Your task to perform on an android device: toggle notifications settings in the gmail app Image 0: 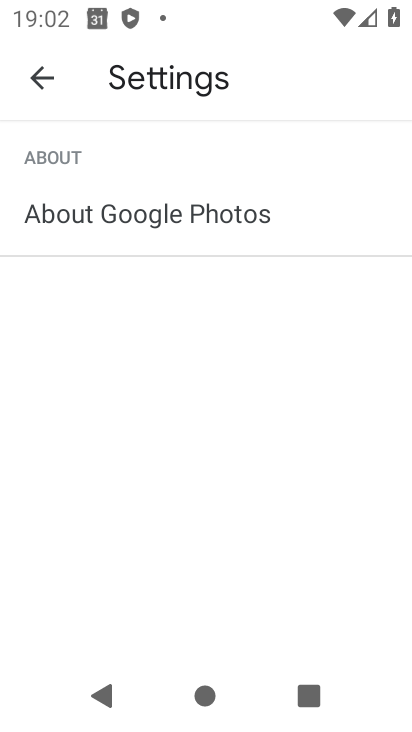
Step 0: press home button
Your task to perform on an android device: toggle notifications settings in the gmail app Image 1: 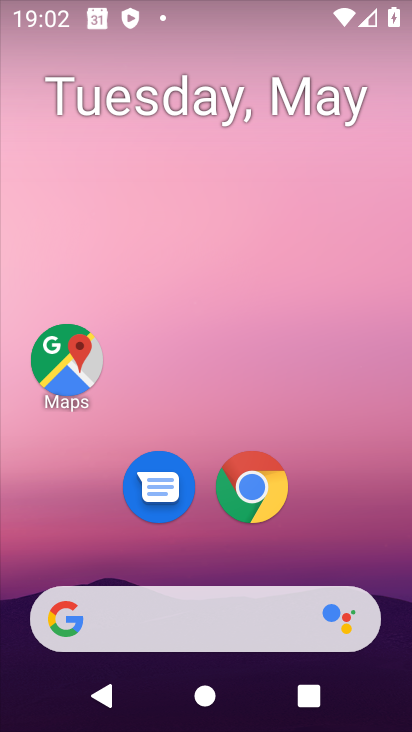
Step 1: drag from (321, 494) to (358, 0)
Your task to perform on an android device: toggle notifications settings in the gmail app Image 2: 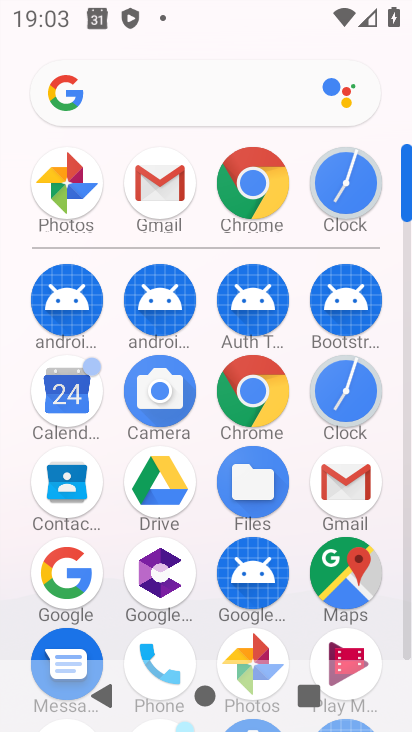
Step 2: click (168, 187)
Your task to perform on an android device: toggle notifications settings in the gmail app Image 3: 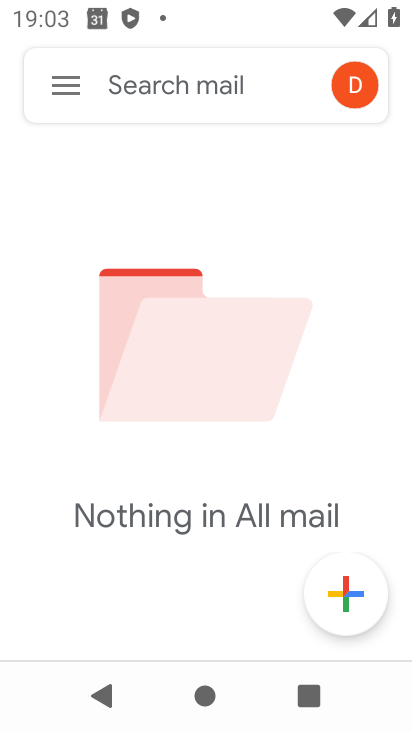
Step 3: click (64, 88)
Your task to perform on an android device: toggle notifications settings in the gmail app Image 4: 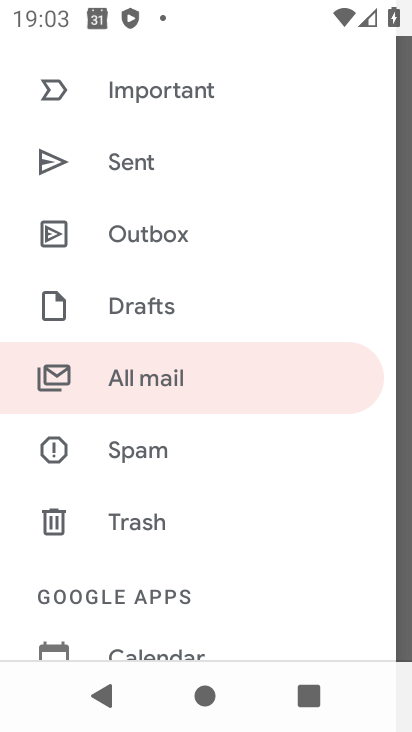
Step 4: drag from (212, 520) to (200, 76)
Your task to perform on an android device: toggle notifications settings in the gmail app Image 5: 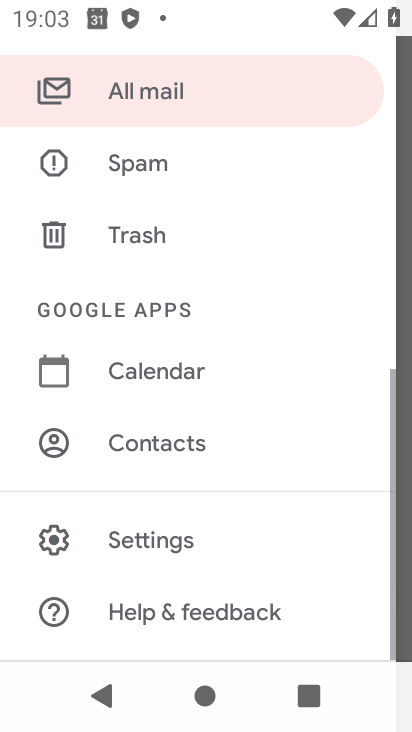
Step 5: click (154, 540)
Your task to perform on an android device: toggle notifications settings in the gmail app Image 6: 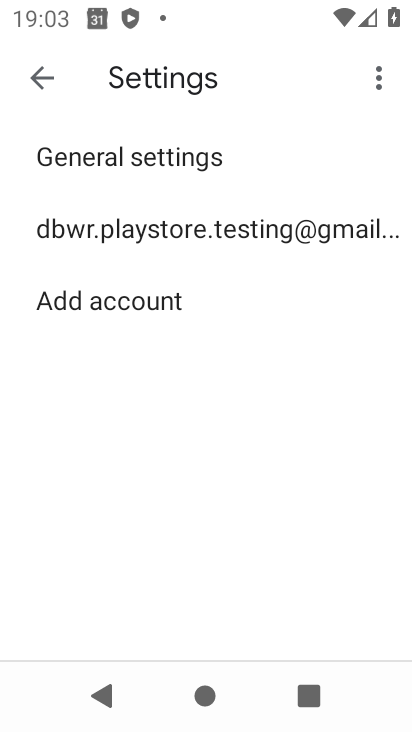
Step 6: click (134, 144)
Your task to perform on an android device: toggle notifications settings in the gmail app Image 7: 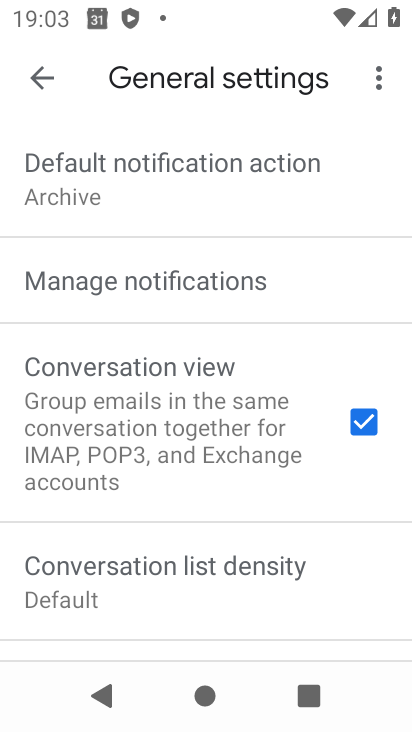
Step 7: click (145, 288)
Your task to perform on an android device: toggle notifications settings in the gmail app Image 8: 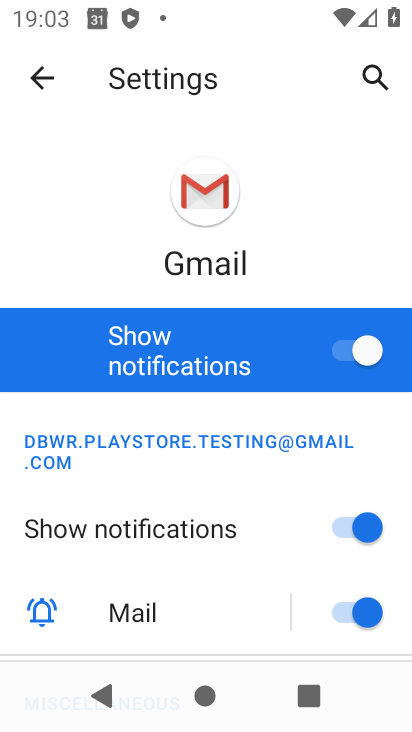
Step 8: click (368, 353)
Your task to perform on an android device: toggle notifications settings in the gmail app Image 9: 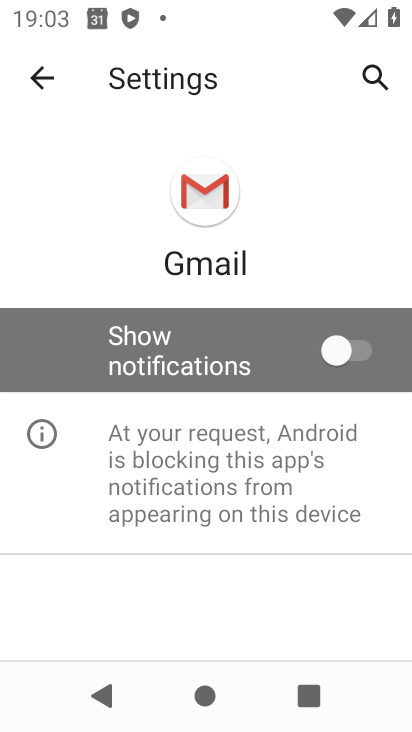
Step 9: task complete